Your task to perform on an android device: snooze an email in the gmail app Image 0: 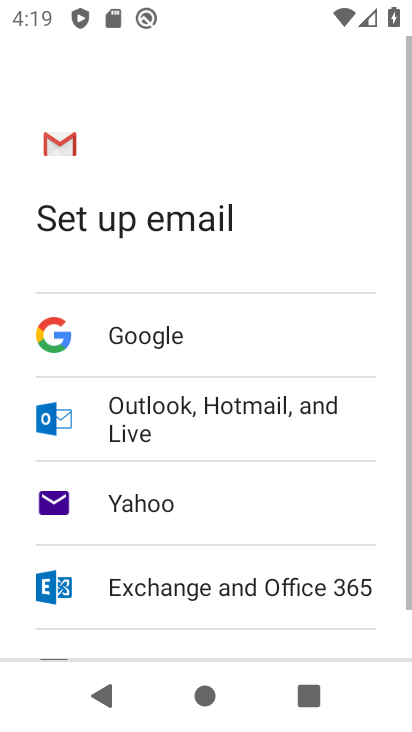
Step 0: press home button
Your task to perform on an android device: snooze an email in the gmail app Image 1: 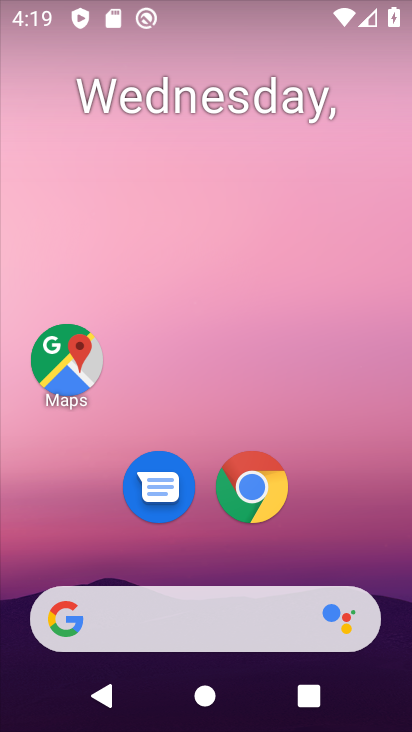
Step 1: drag from (344, 497) to (261, 60)
Your task to perform on an android device: snooze an email in the gmail app Image 2: 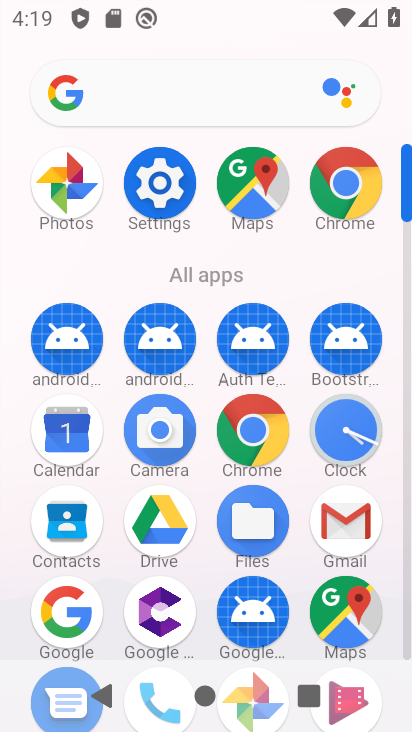
Step 2: click (330, 508)
Your task to perform on an android device: snooze an email in the gmail app Image 3: 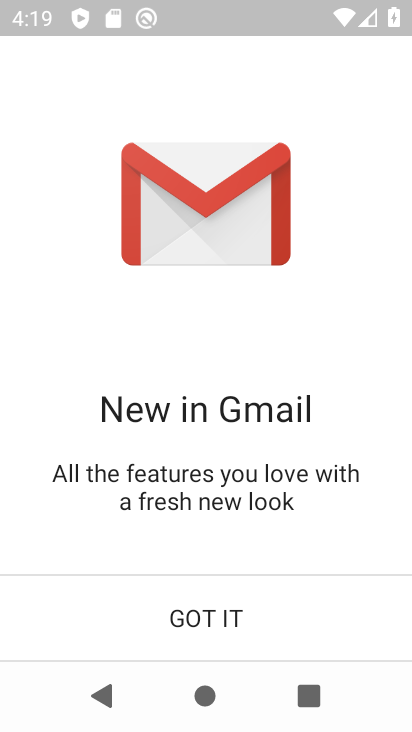
Step 3: click (232, 604)
Your task to perform on an android device: snooze an email in the gmail app Image 4: 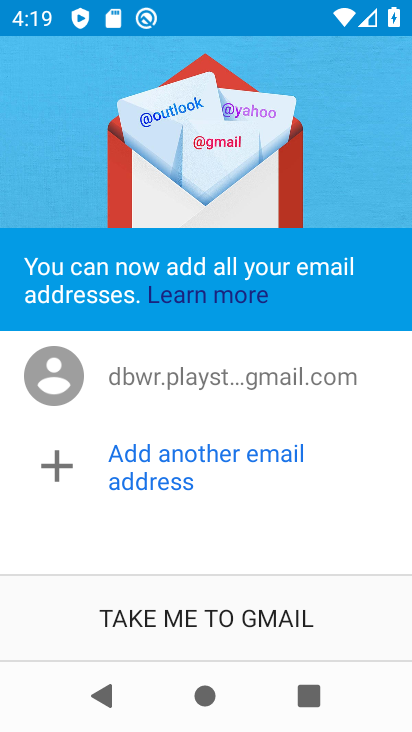
Step 4: click (231, 602)
Your task to perform on an android device: snooze an email in the gmail app Image 5: 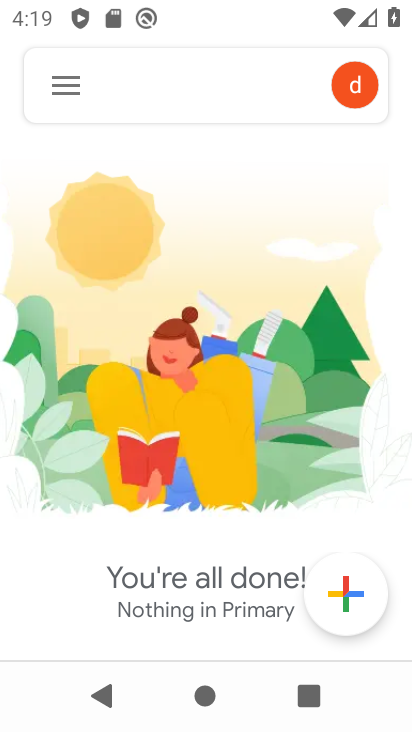
Step 5: click (68, 77)
Your task to perform on an android device: snooze an email in the gmail app Image 6: 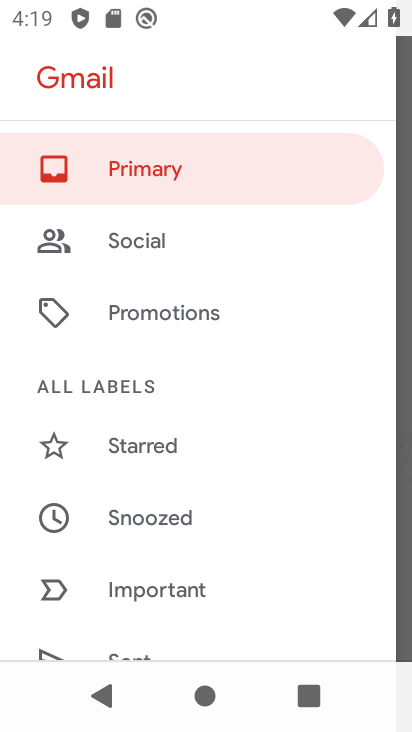
Step 6: drag from (174, 570) to (204, 201)
Your task to perform on an android device: snooze an email in the gmail app Image 7: 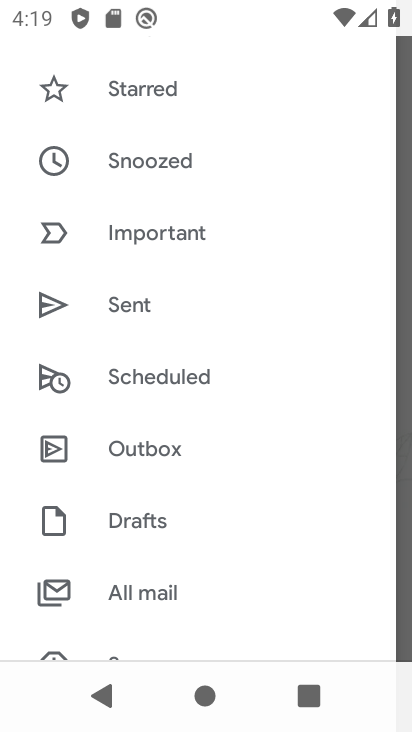
Step 7: click (141, 594)
Your task to perform on an android device: snooze an email in the gmail app Image 8: 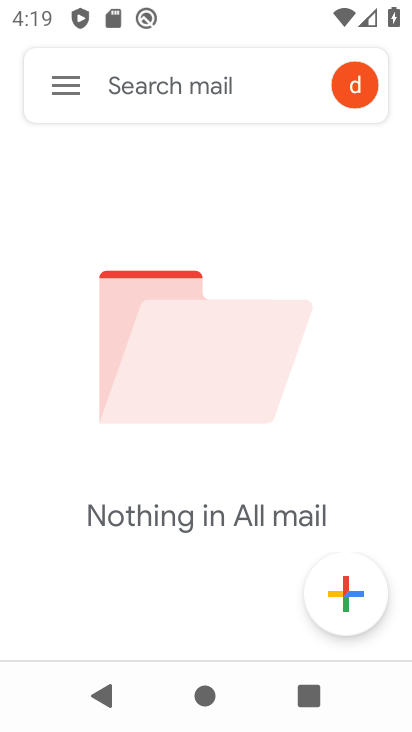
Step 8: task complete